Your task to perform on an android device: Go to Android settings Image 0: 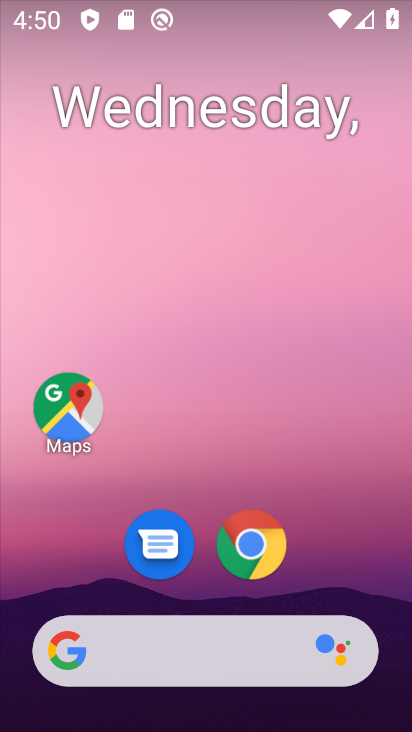
Step 0: drag from (360, 510) to (331, 147)
Your task to perform on an android device: Go to Android settings Image 1: 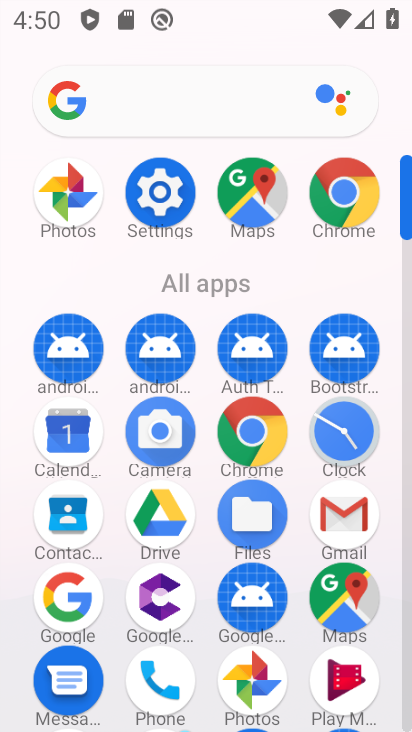
Step 1: click (150, 201)
Your task to perform on an android device: Go to Android settings Image 2: 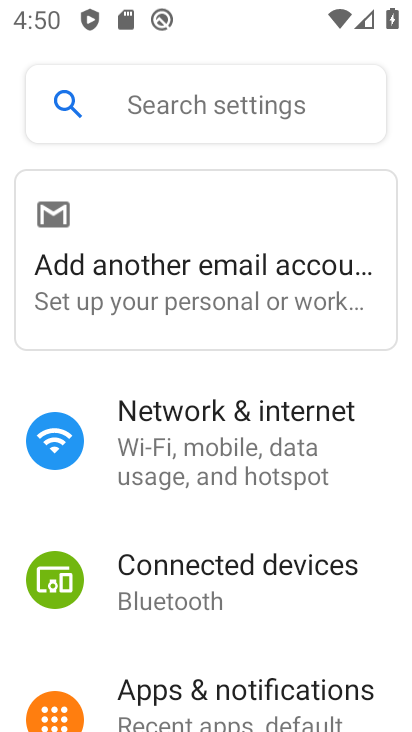
Step 2: task complete